Your task to perform on an android device: Go to eBay Image 0: 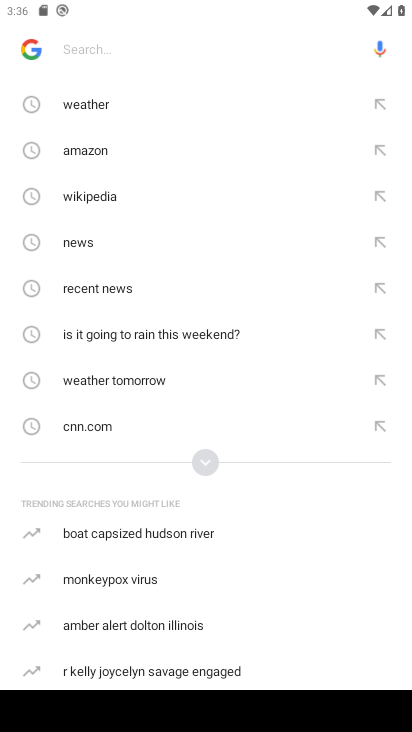
Step 0: type "ebay"
Your task to perform on an android device: Go to eBay Image 1: 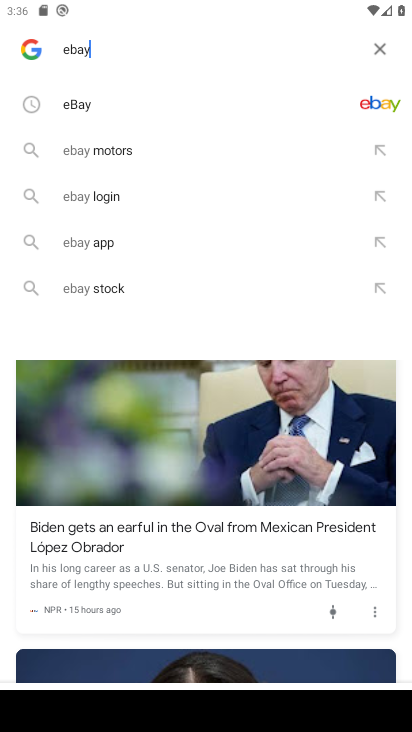
Step 1: click (309, 114)
Your task to perform on an android device: Go to eBay Image 2: 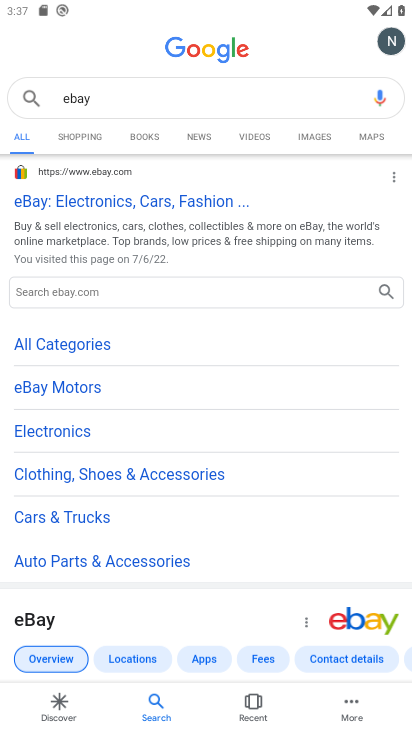
Step 2: task complete